Your task to perform on an android device: find photos in the google photos app Image 0: 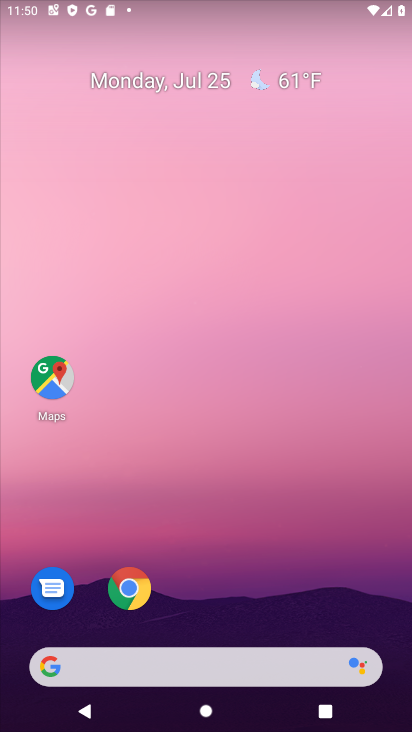
Step 0: drag from (211, 615) to (228, 55)
Your task to perform on an android device: find photos in the google photos app Image 1: 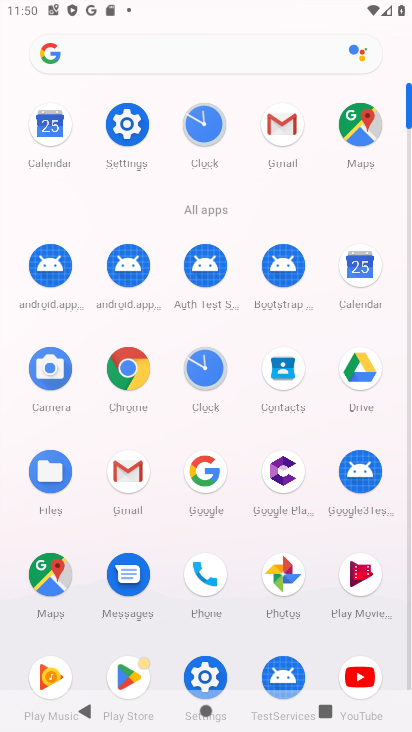
Step 1: click (278, 566)
Your task to perform on an android device: find photos in the google photos app Image 2: 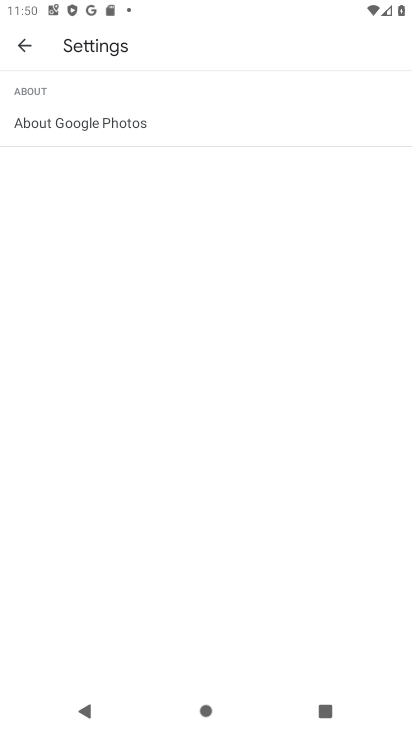
Step 2: click (23, 47)
Your task to perform on an android device: find photos in the google photos app Image 3: 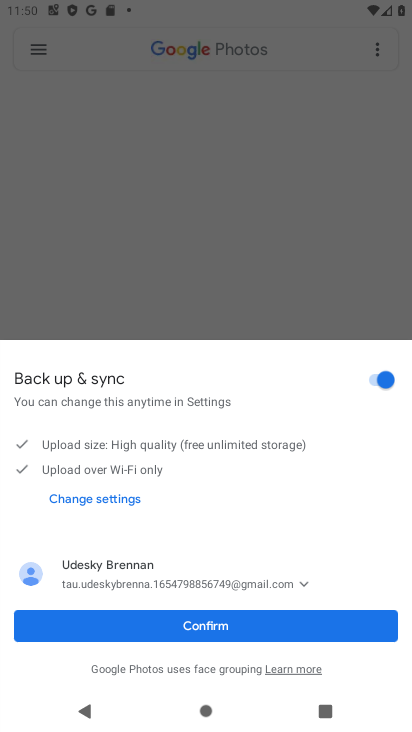
Step 3: click (209, 627)
Your task to perform on an android device: find photos in the google photos app Image 4: 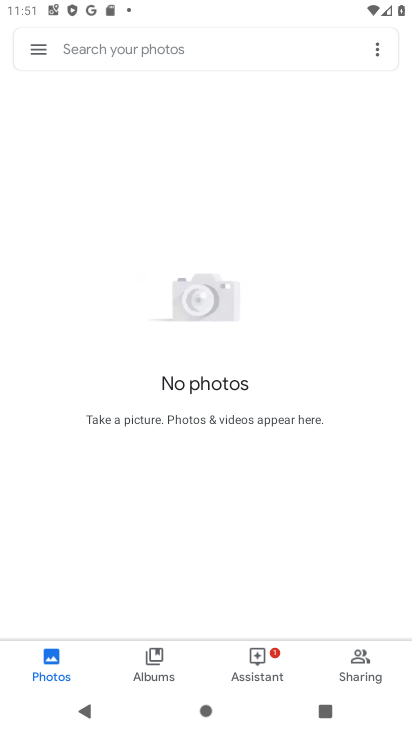
Step 4: task complete